Your task to perform on an android device: Is it going to rain tomorrow? Image 0: 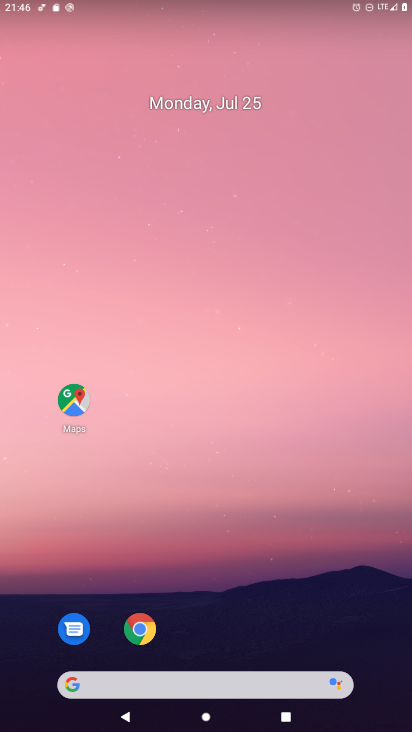
Step 0: drag from (217, 687) to (278, 153)
Your task to perform on an android device: Is it going to rain tomorrow? Image 1: 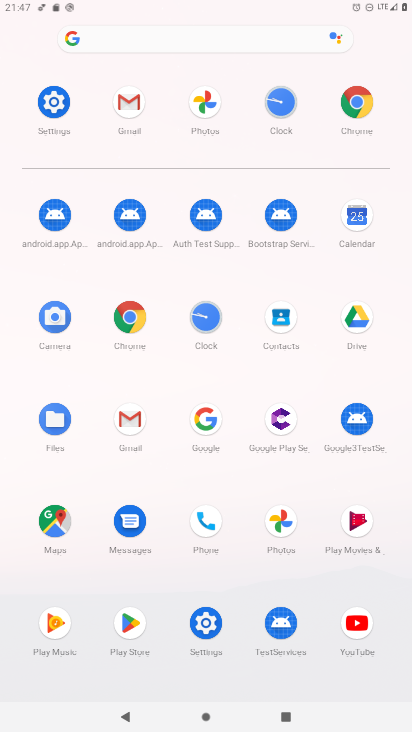
Step 1: click (204, 419)
Your task to perform on an android device: Is it going to rain tomorrow? Image 2: 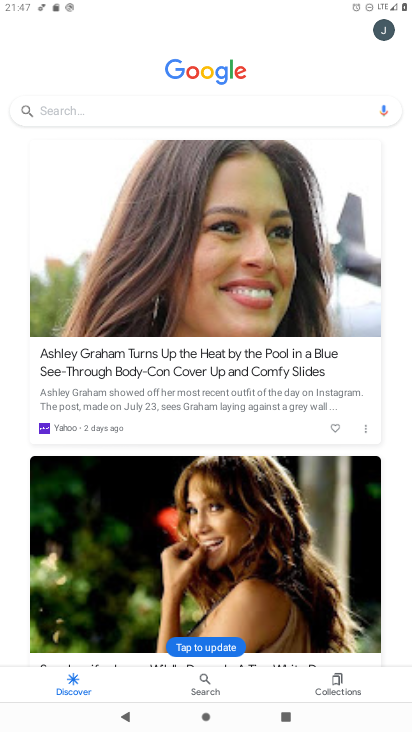
Step 2: click (209, 105)
Your task to perform on an android device: Is it going to rain tomorrow? Image 3: 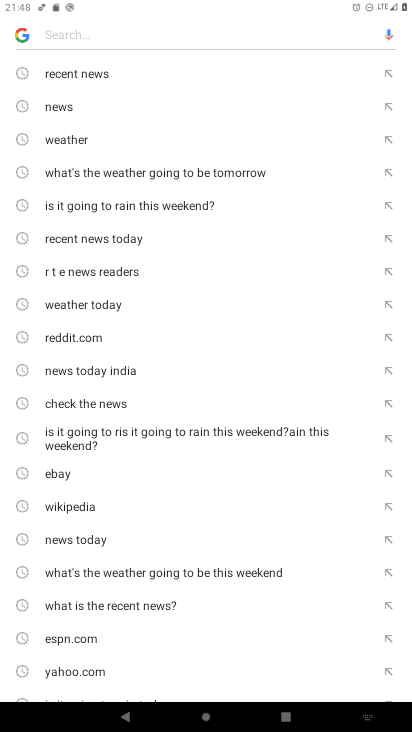
Step 3: type "Is it going to rain tomorrow?"
Your task to perform on an android device: Is it going to rain tomorrow? Image 4: 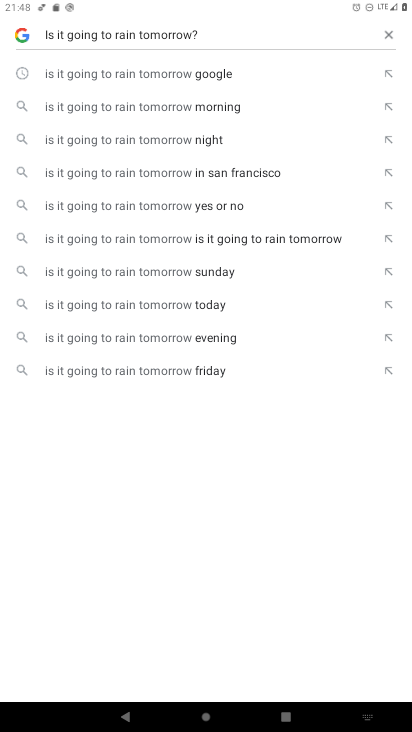
Step 4: click (201, 174)
Your task to perform on an android device: Is it going to rain tomorrow? Image 5: 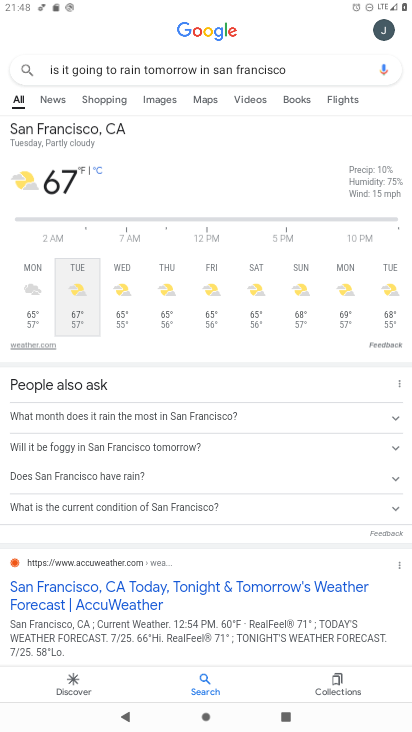
Step 5: task complete